Your task to perform on an android device: open wifi settings Image 0: 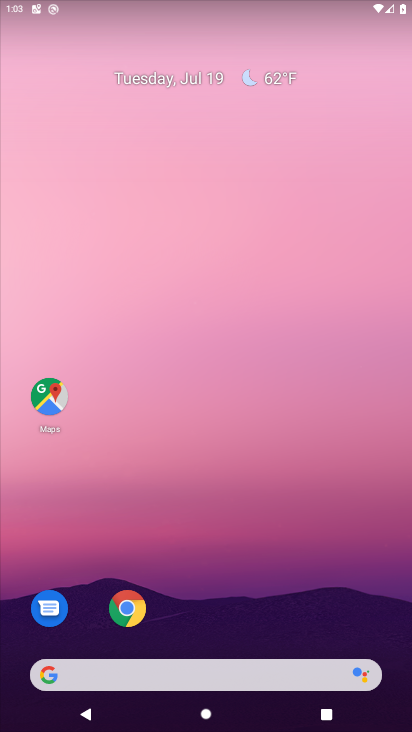
Step 0: drag from (211, 631) to (275, 59)
Your task to perform on an android device: open wifi settings Image 1: 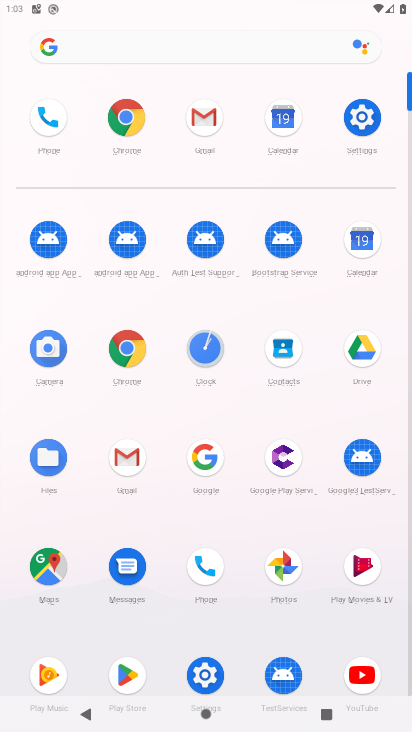
Step 1: click (366, 113)
Your task to perform on an android device: open wifi settings Image 2: 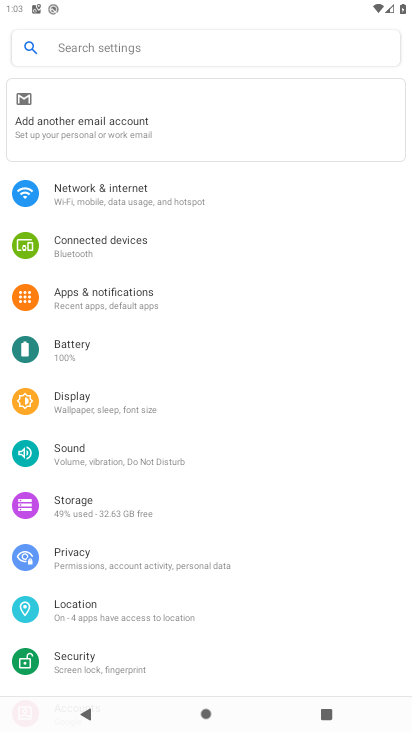
Step 2: click (145, 188)
Your task to perform on an android device: open wifi settings Image 3: 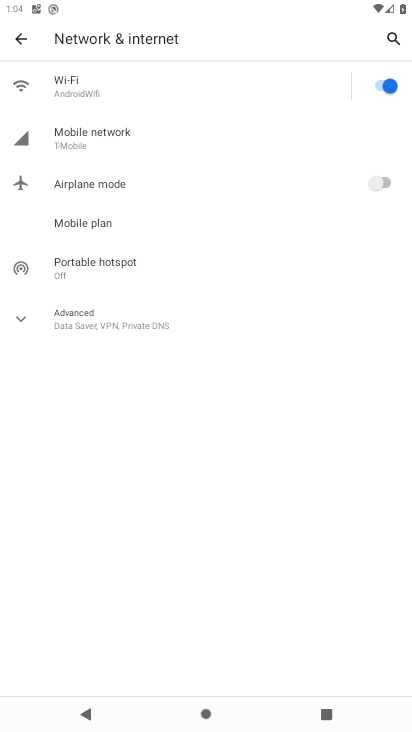
Step 3: click (119, 86)
Your task to perform on an android device: open wifi settings Image 4: 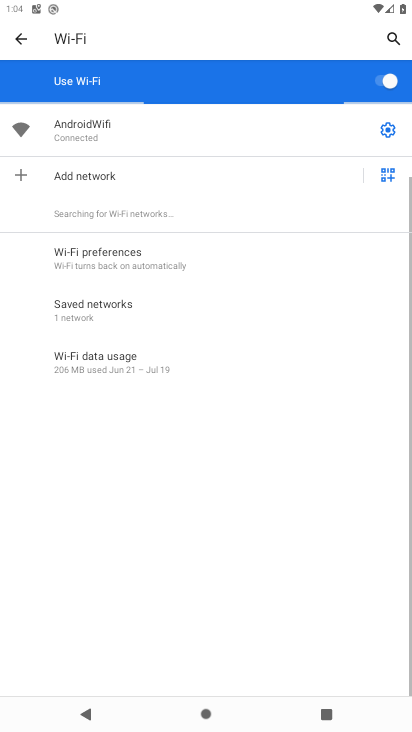
Step 4: task complete